Your task to perform on an android device: check the backup settings in the google photos Image 0: 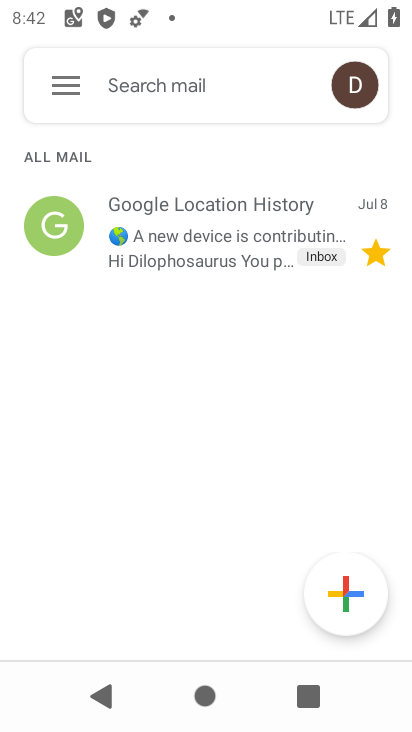
Step 0: press back button
Your task to perform on an android device: check the backup settings in the google photos Image 1: 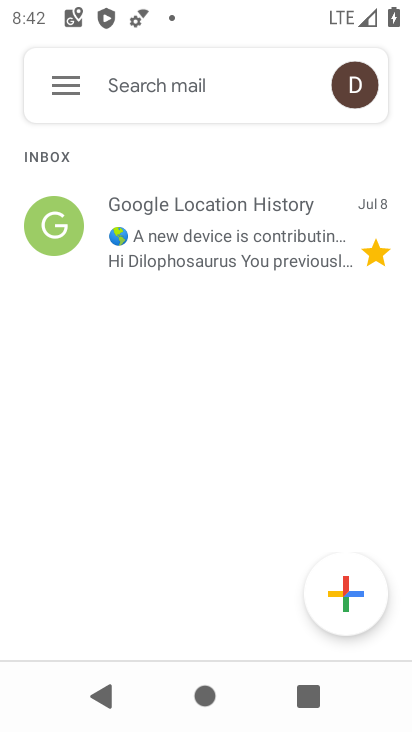
Step 1: press back button
Your task to perform on an android device: check the backup settings in the google photos Image 2: 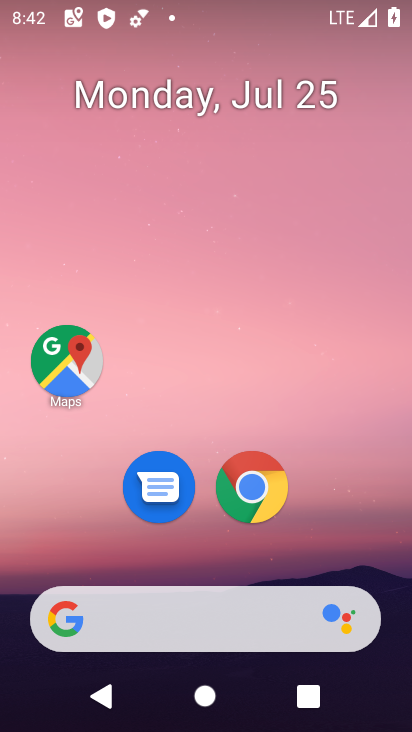
Step 2: drag from (61, 590) to (245, 5)
Your task to perform on an android device: check the backup settings in the google photos Image 3: 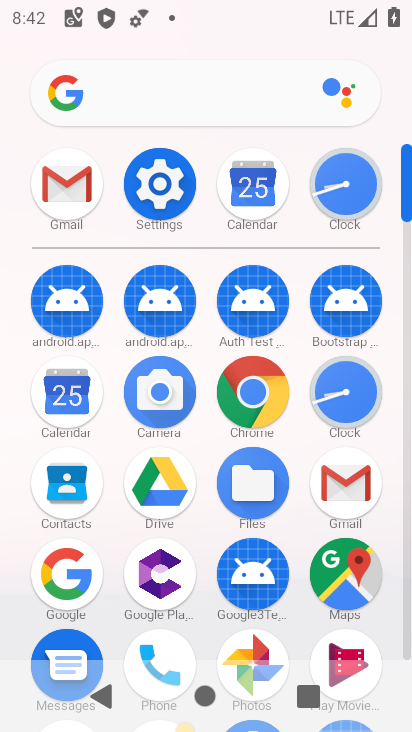
Step 3: click (243, 641)
Your task to perform on an android device: check the backup settings in the google photos Image 4: 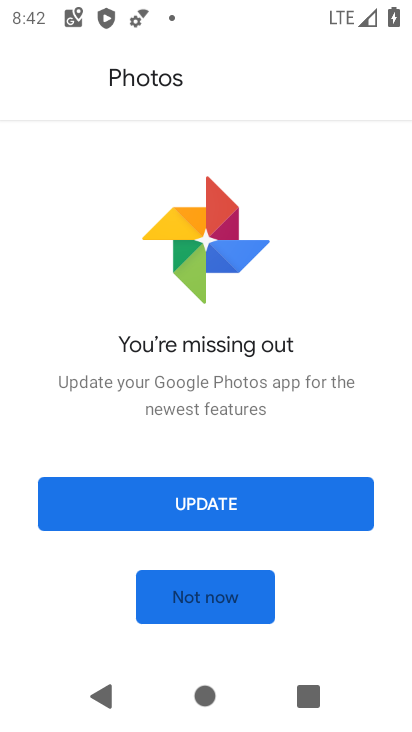
Step 4: click (193, 592)
Your task to perform on an android device: check the backup settings in the google photos Image 5: 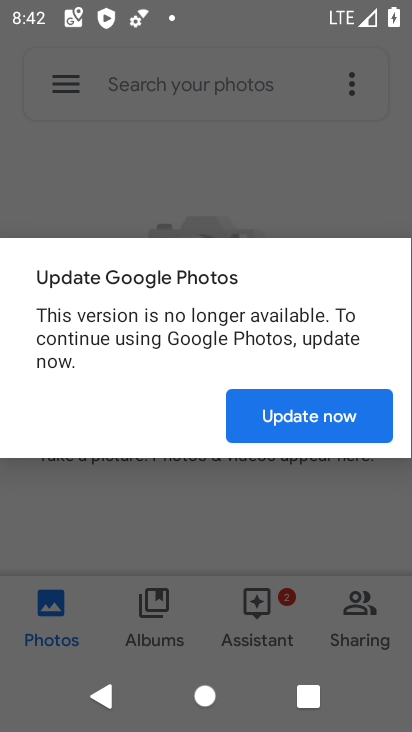
Step 5: click (289, 408)
Your task to perform on an android device: check the backup settings in the google photos Image 6: 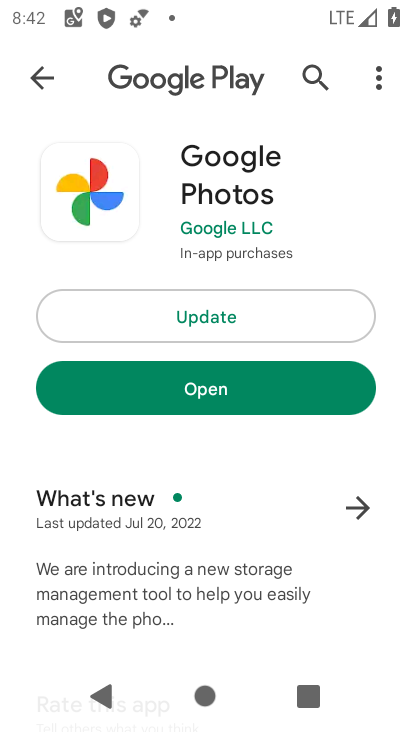
Step 6: click (186, 395)
Your task to perform on an android device: check the backup settings in the google photos Image 7: 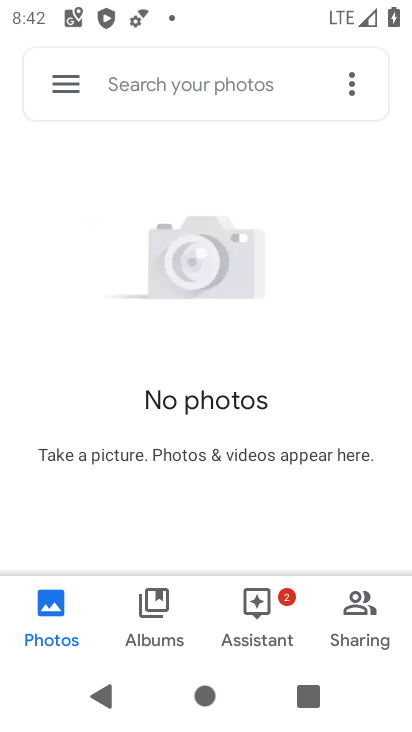
Step 7: click (74, 58)
Your task to perform on an android device: check the backup settings in the google photos Image 8: 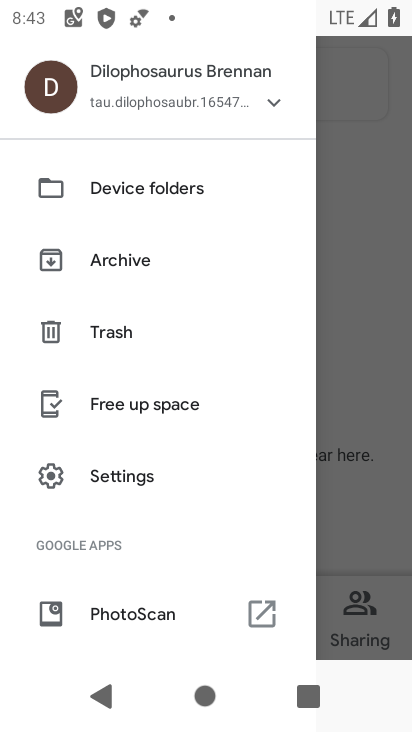
Step 8: click (118, 476)
Your task to perform on an android device: check the backup settings in the google photos Image 9: 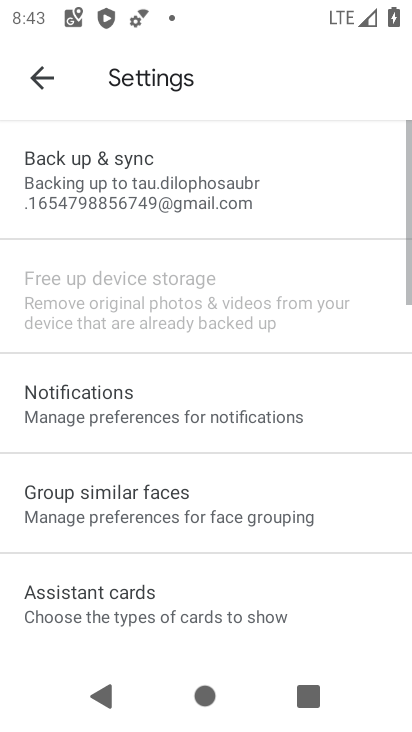
Step 9: click (134, 188)
Your task to perform on an android device: check the backup settings in the google photos Image 10: 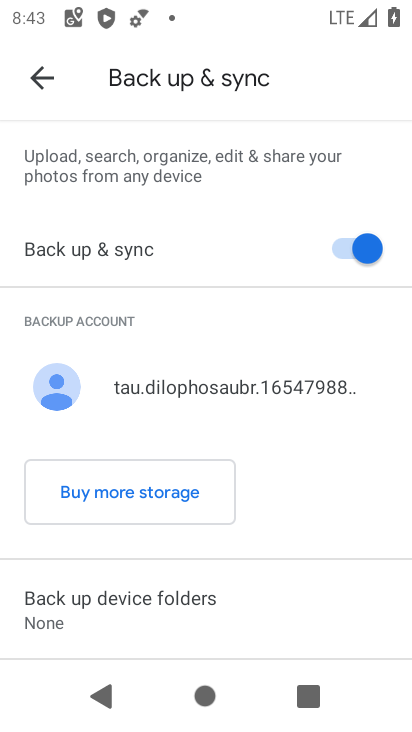
Step 10: task complete